Your task to perform on an android device: check the backup settings in the google photos Image 0: 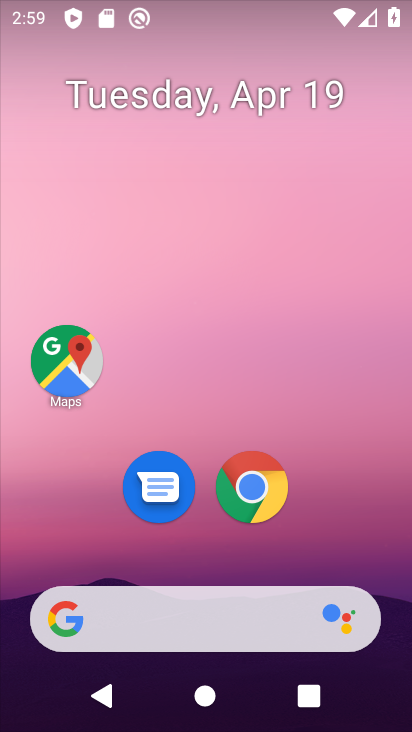
Step 0: drag from (211, 421) to (256, 7)
Your task to perform on an android device: check the backup settings in the google photos Image 1: 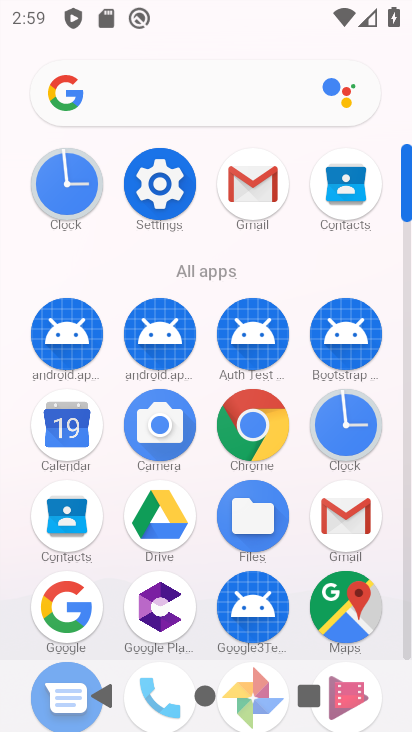
Step 1: drag from (212, 600) to (295, 247)
Your task to perform on an android device: check the backup settings in the google photos Image 2: 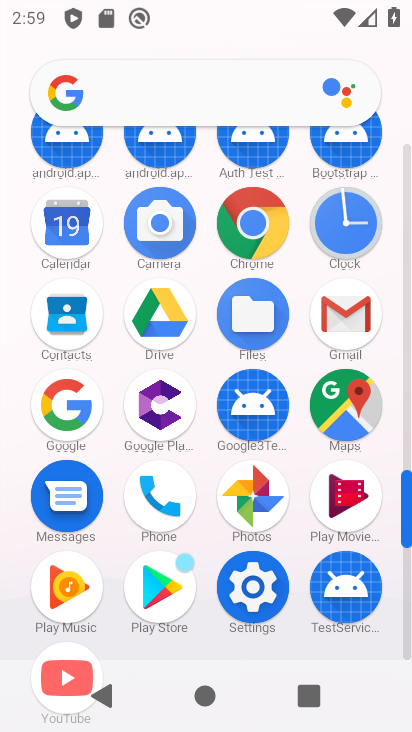
Step 2: click (242, 496)
Your task to perform on an android device: check the backup settings in the google photos Image 3: 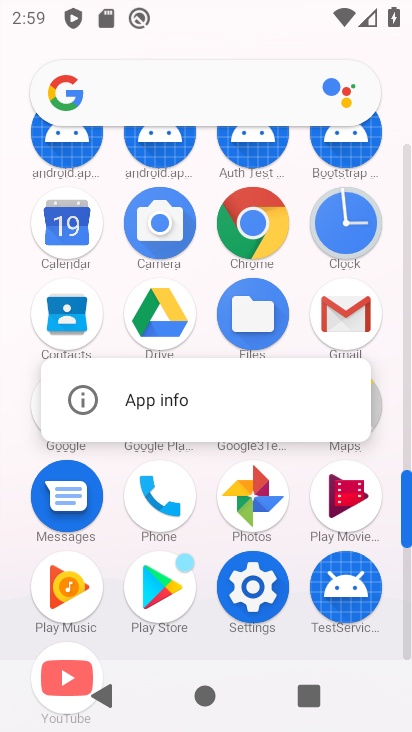
Step 3: click (255, 486)
Your task to perform on an android device: check the backup settings in the google photos Image 4: 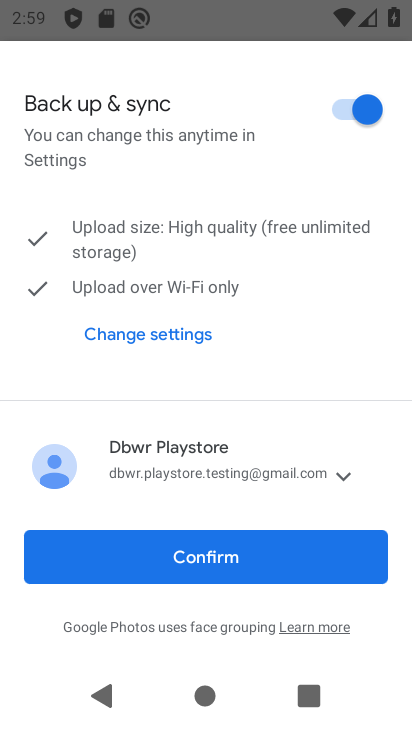
Step 4: click (59, 80)
Your task to perform on an android device: check the backup settings in the google photos Image 5: 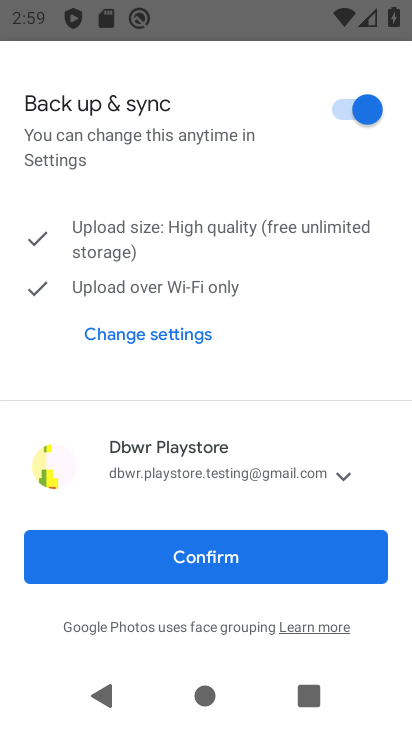
Step 5: click (238, 550)
Your task to perform on an android device: check the backup settings in the google photos Image 6: 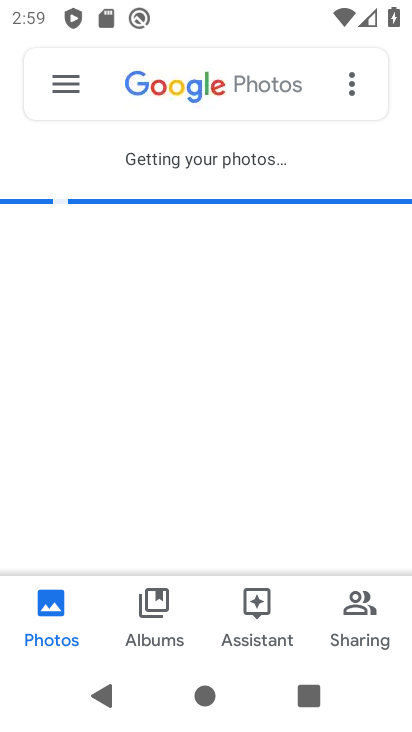
Step 6: click (47, 75)
Your task to perform on an android device: check the backup settings in the google photos Image 7: 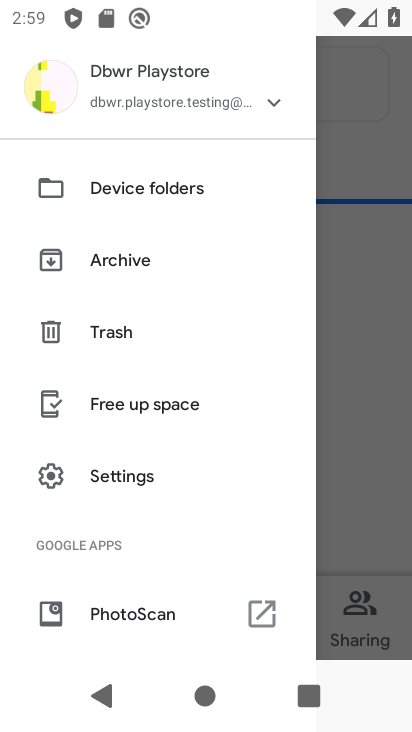
Step 7: click (152, 88)
Your task to perform on an android device: check the backup settings in the google photos Image 8: 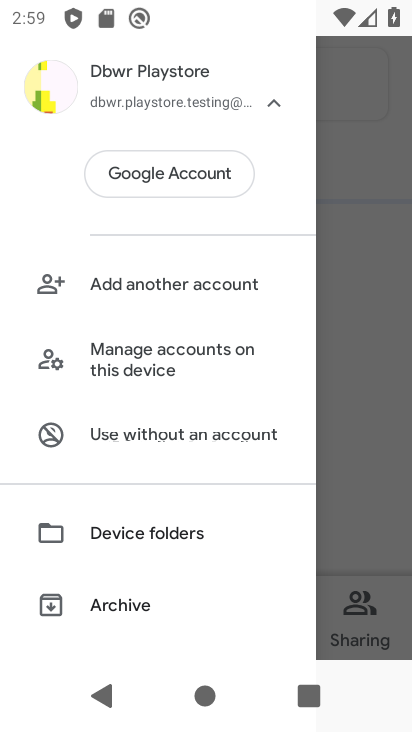
Step 8: click (172, 99)
Your task to perform on an android device: check the backup settings in the google photos Image 9: 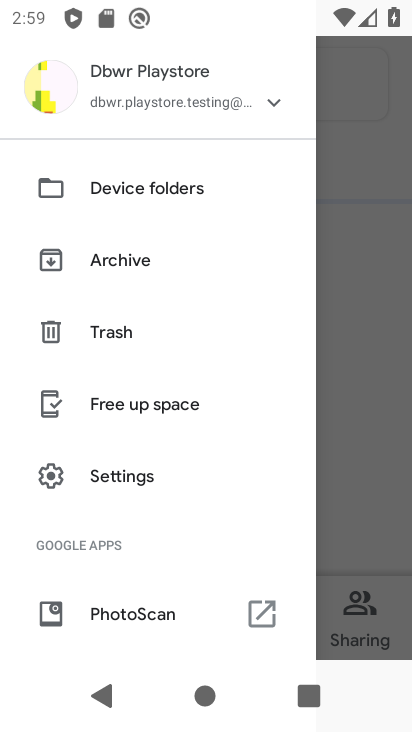
Step 9: click (183, 119)
Your task to perform on an android device: check the backup settings in the google photos Image 10: 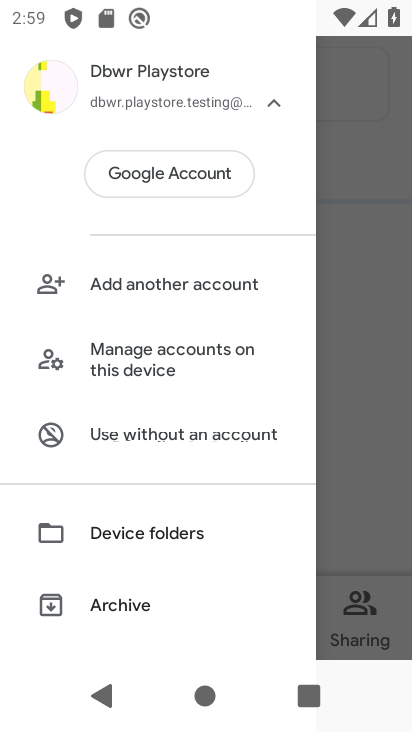
Step 10: drag from (261, 235) to (287, 136)
Your task to perform on an android device: check the backup settings in the google photos Image 11: 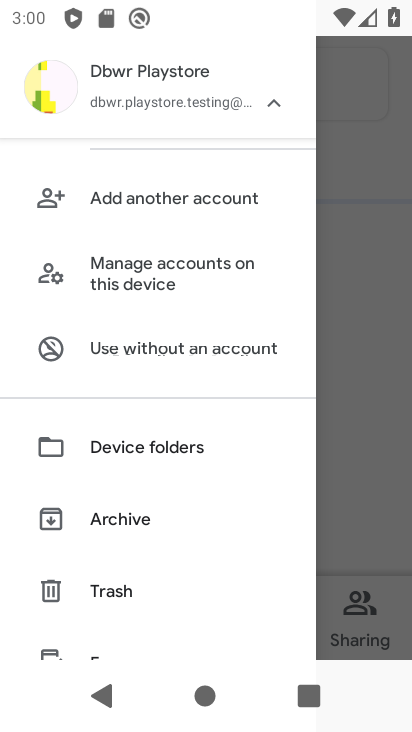
Step 11: drag from (214, 154) to (186, 608)
Your task to perform on an android device: check the backup settings in the google photos Image 12: 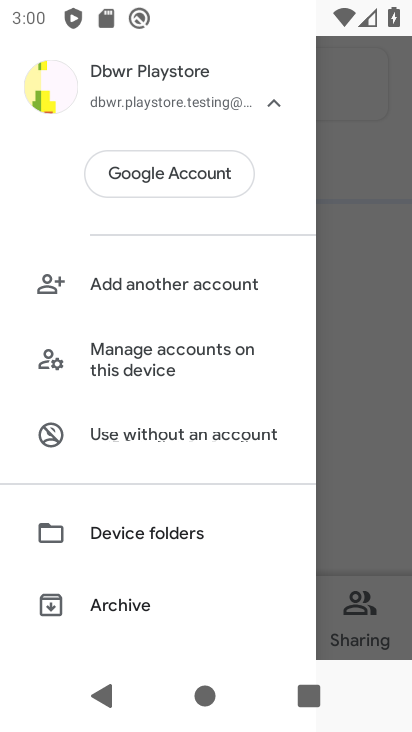
Step 12: drag from (143, 582) to (290, 60)
Your task to perform on an android device: check the backup settings in the google photos Image 13: 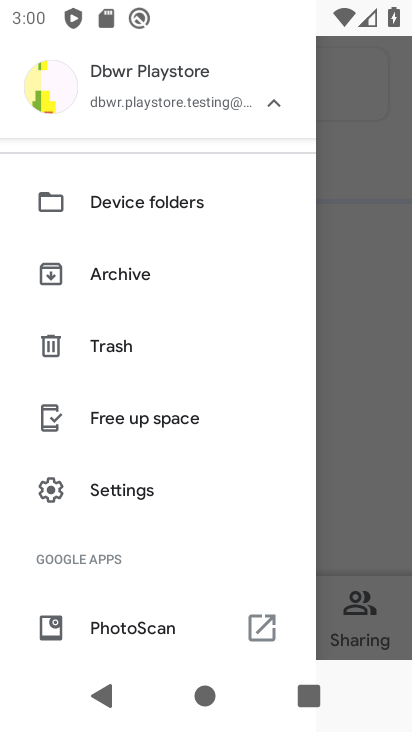
Step 13: click (146, 484)
Your task to perform on an android device: check the backup settings in the google photos Image 14: 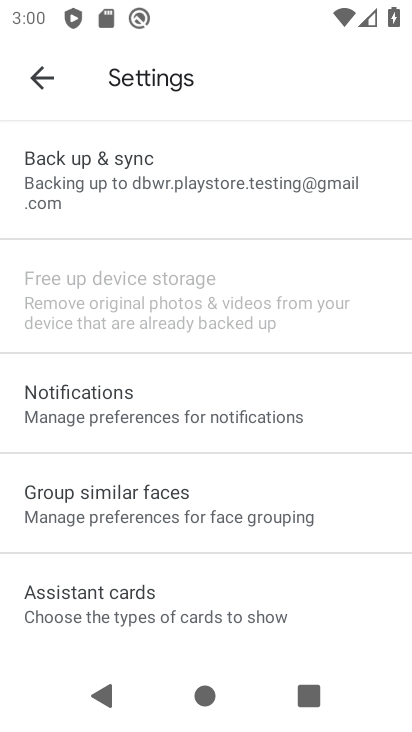
Step 14: click (152, 184)
Your task to perform on an android device: check the backup settings in the google photos Image 15: 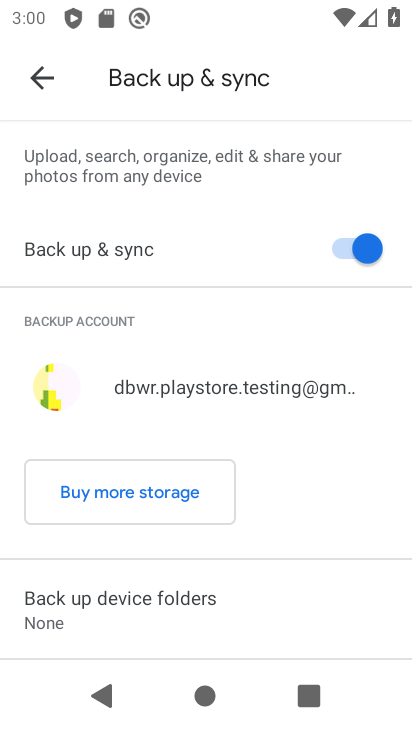
Step 15: task complete